Your task to perform on an android device: Look up the best rated headphones on Aliexpress Image 0: 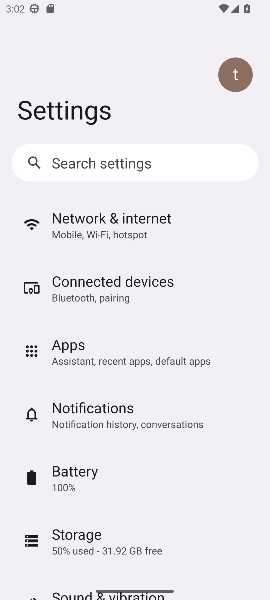
Step 0: press home button
Your task to perform on an android device: Look up the best rated headphones on Aliexpress Image 1: 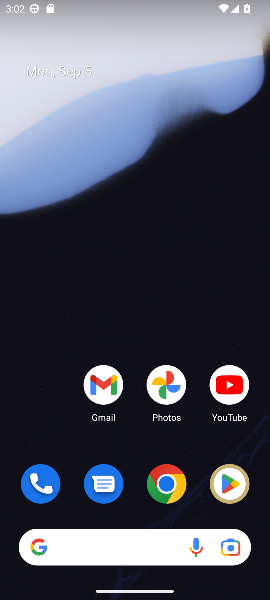
Step 1: click (167, 479)
Your task to perform on an android device: Look up the best rated headphones on Aliexpress Image 2: 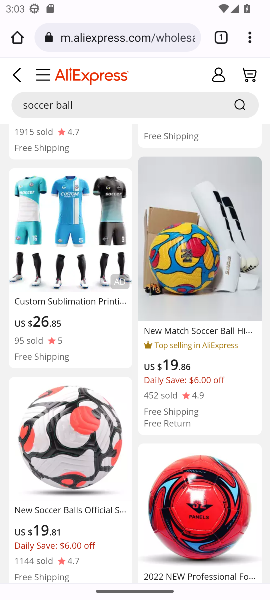
Step 2: click (150, 109)
Your task to perform on an android device: Look up the best rated headphones on Aliexpress Image 3: 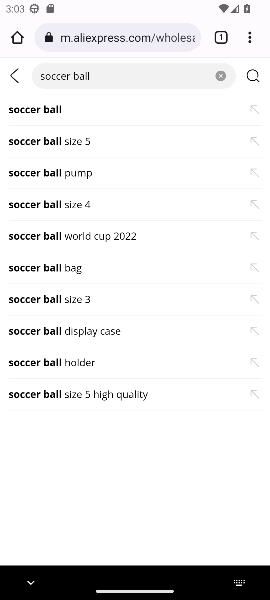
Step 3: click (219, 71)
Your task to perform on an android device: Look up the best rated headphones on Aliexpress Image 4: 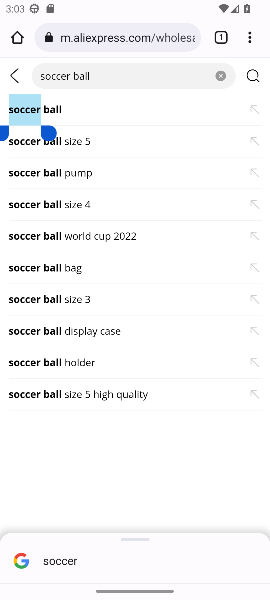
Step 4: click (220, 76)
Your task to perform on an android device: Look up the best rated headphones on Aliexpress Image 5: 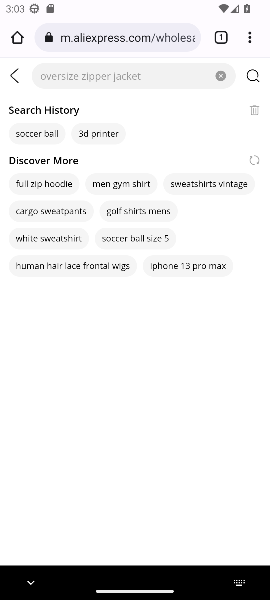
Step 5: type "headphones"
Your task to perform on an android device: Look up the best rated headphones on Aliexpress Image 6: 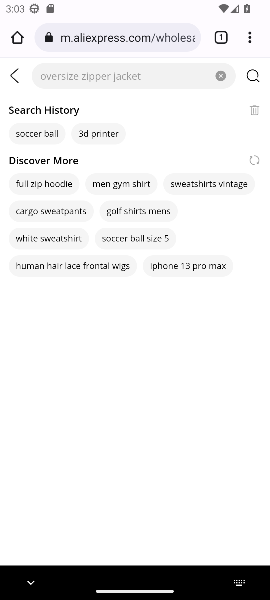
Step 6: press enter
Your task to perform on an android device: Look up the best rated headphones on Aliexpress Image 7: 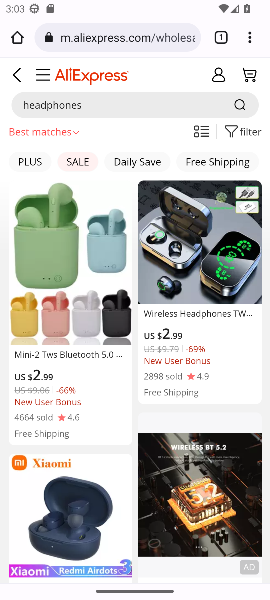
Step 7: task complete